Your task to perform on an android device: Open Google Chrome and open the bookmarks view Image 0: 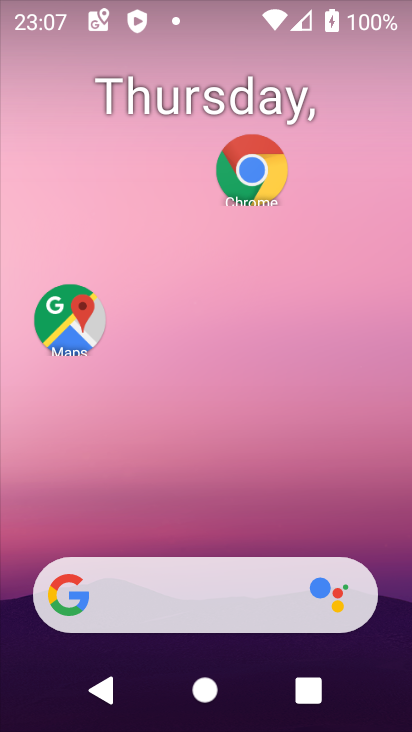
Step 0: click (263, 171)
Your task to perform on an android device: Open Google Chrome and open the bookmarks view Image 1: 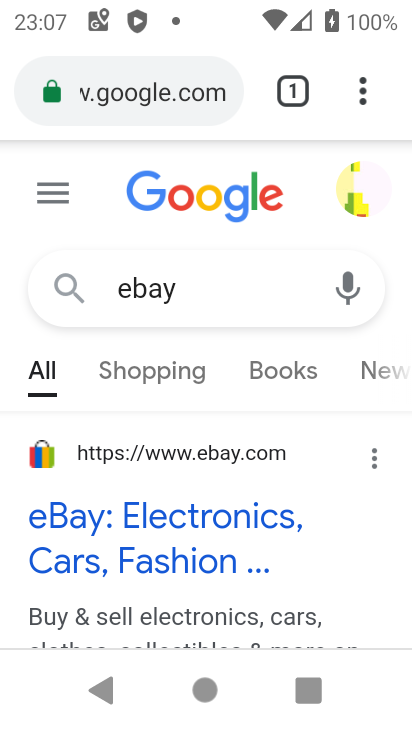
Step 1: click (362, 83)
Your task to perform on an android device: Open Google Chrome and open the bookmarks view Image 2: 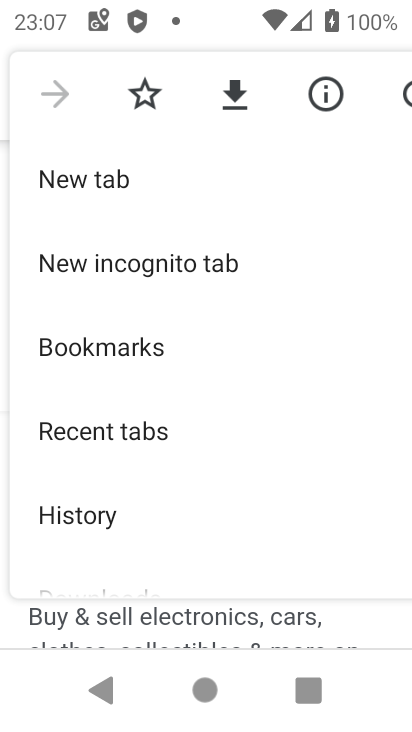
Step 2: click (93, 332)
Your task to perform on an android device: Open Google Chrome and open the bookmarks view Image 3: 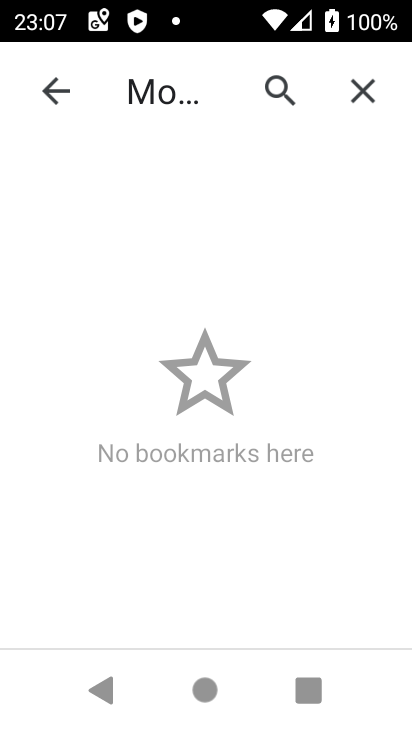
Step 3: task complete